Your task to perform on an android device: Go to Wikipedia Image 0: 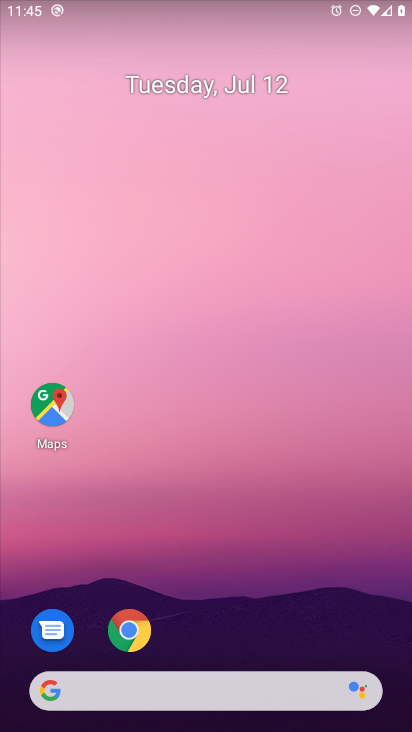
Step 0: press home button
Your task to perform on an android device: Go to Wikipedia Image 1: 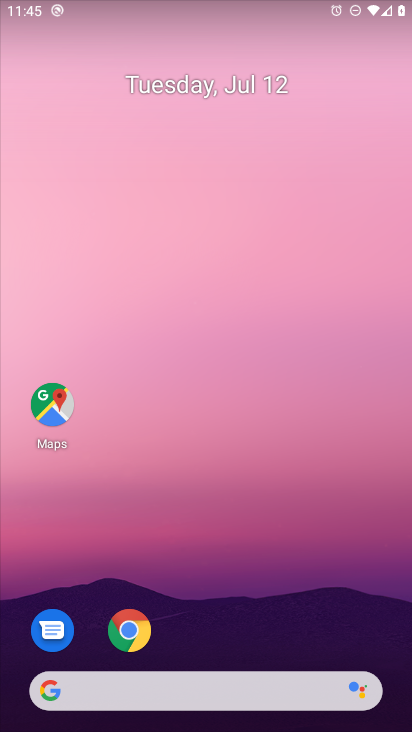
Step 1: click (184, 696)
Your task to perform on an android device: Go to Wikipedia Image 2: 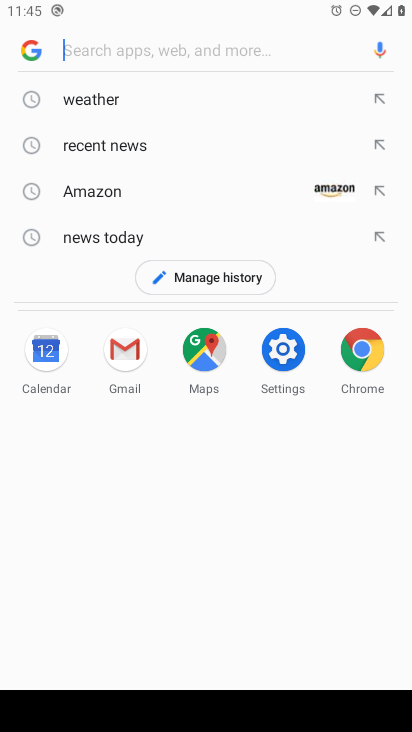
Step 2: type "Wikipedia"
Your task to perform on an android device: Go to Wikipedia Image 3: 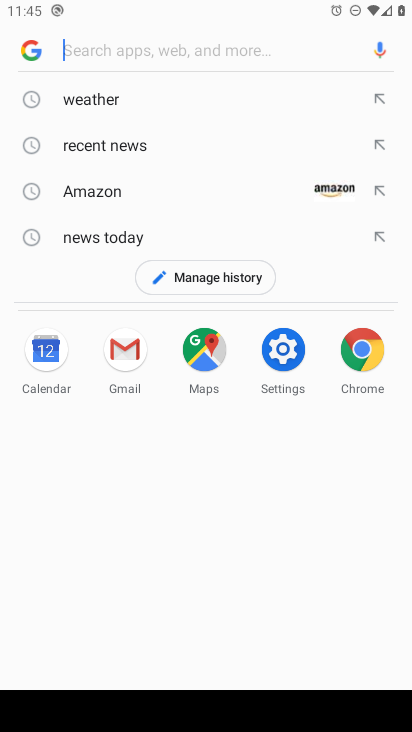
Step 3: click (177, 52)
Your task to perform on an android device: Go to Wikipedia Image 4: 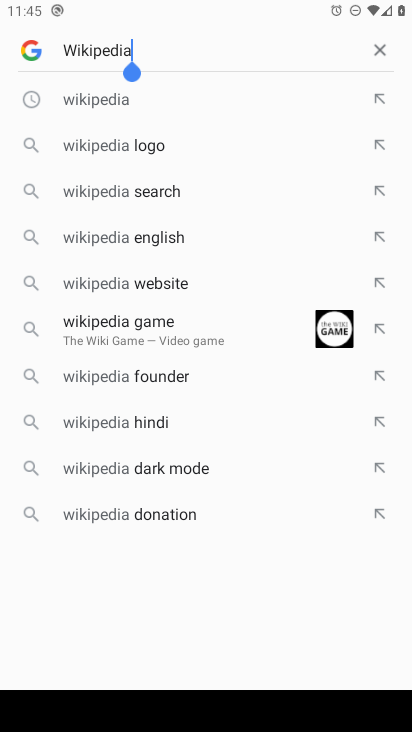
Step 4: click (78, 93)
Your task to perform on an android device: Go to Wikipedia Image 5: 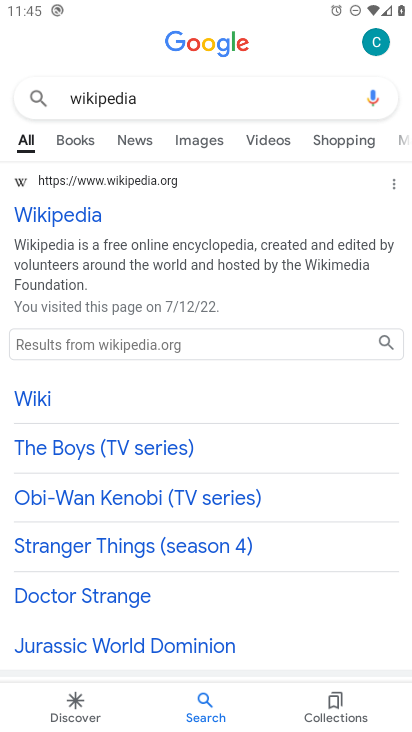
Step 5: click (60, 215)
Your task to perform on an android device: Go to Wikipedia Image 6: 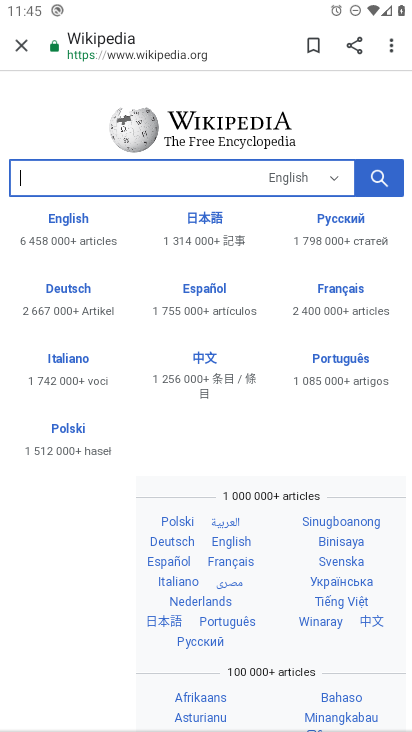
Step 6: task complete